Your task to perform on an android device: change notification settings in the gmail app Image 0: 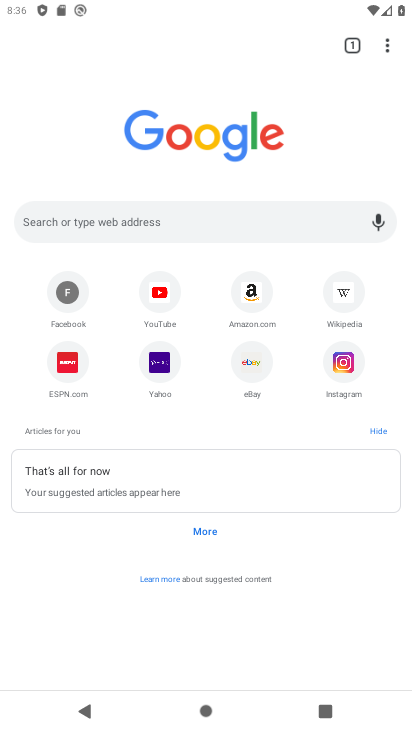
Step 0: press home button
Your task to perform on an android device: change notification settings in the gmail app Image 1: 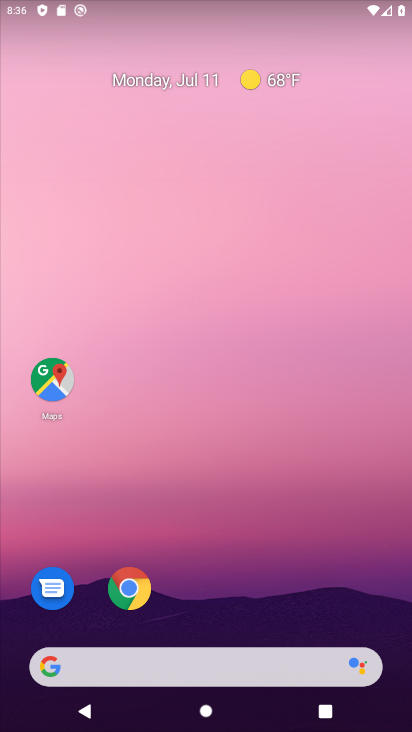
Step 1: drag from (199, 643) to (246, 39)
Your task to perform on an android device: change notification settings in the gmail app Image 2: 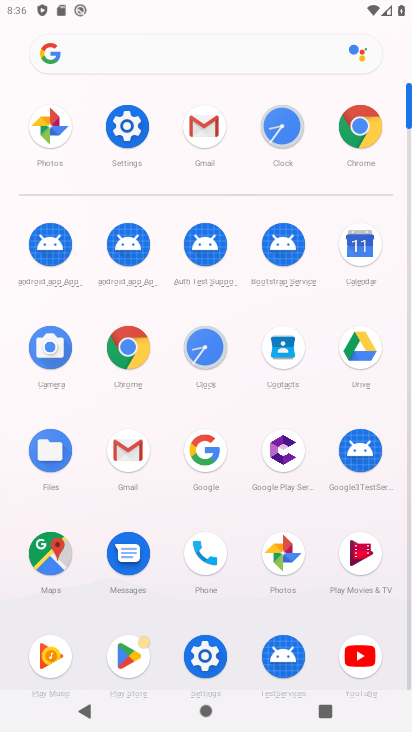
Step 2: click (126, 450)
Your task to perform on an android device: change notification settings in the gmail app Image 3: 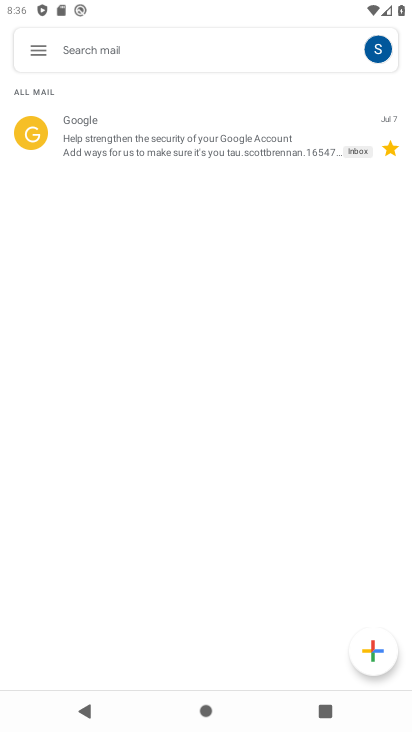
Step 3: click (42, 51)
Your task to perform on an android device: change notification settings in the gmail app Image 4: 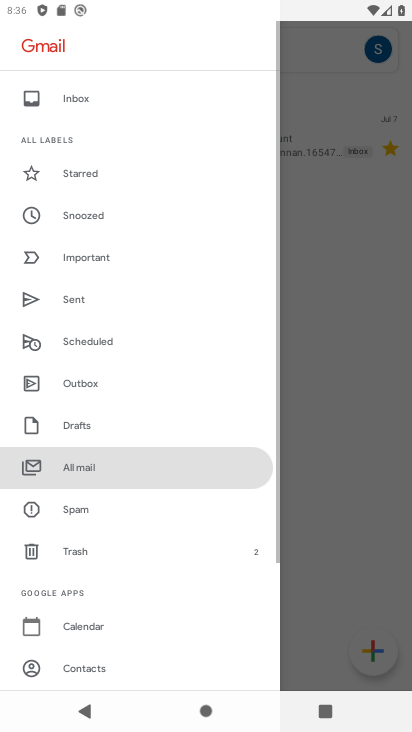
Step 4: drag from (68, 655) to (54, 231)
Your task to perform on an android device: change notification settings in the gmail app Image 5: 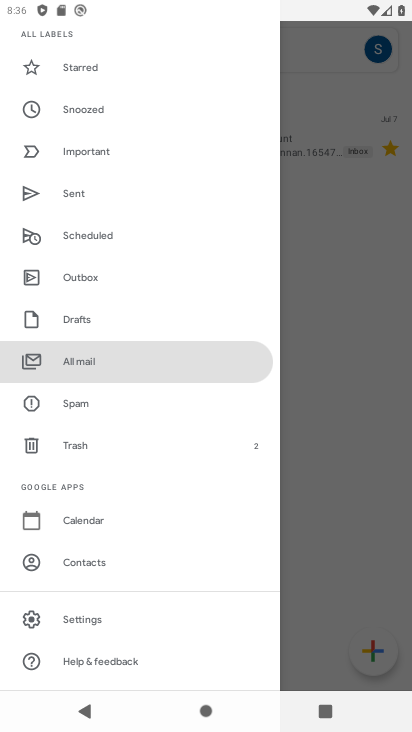
Step 5: click (61, 611)
Your task to perform on an android device: change notification settings in the gmail app Image 6: 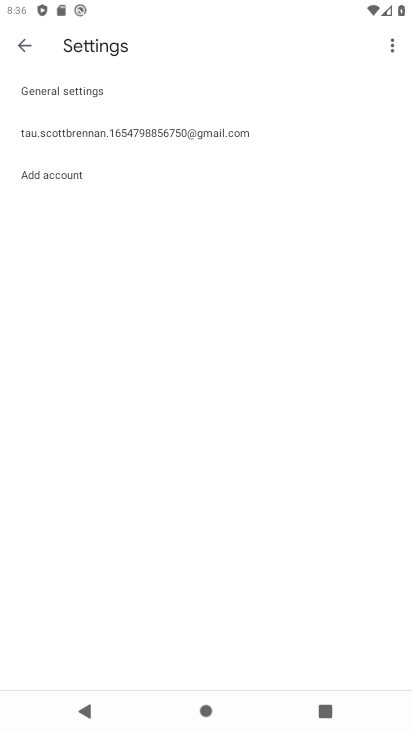
Step 6: click (66, 100)
Your task to perform on an android device: change notification settings in the gmail app Image 7: 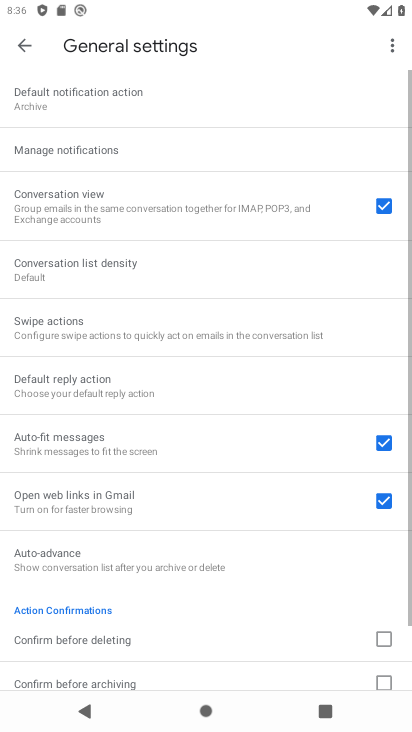
Step 7: click (72, 158)
Your task to perform on an android device: change notification settings in the gmail app Image 8: 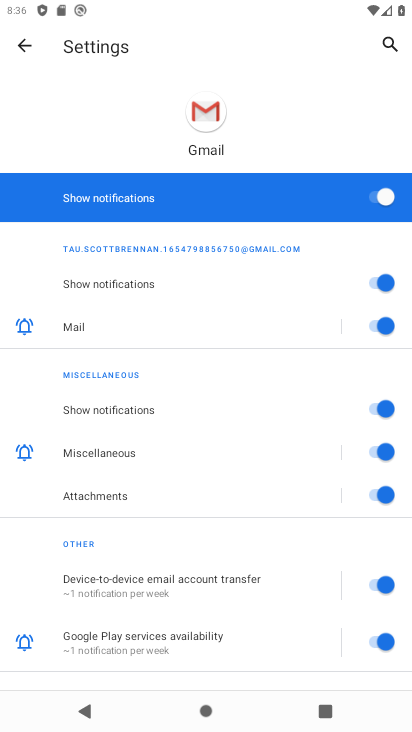
Step 8: click (369, 193)
Your task to perform on an android device: change notification settings in the gmail app Image 9: 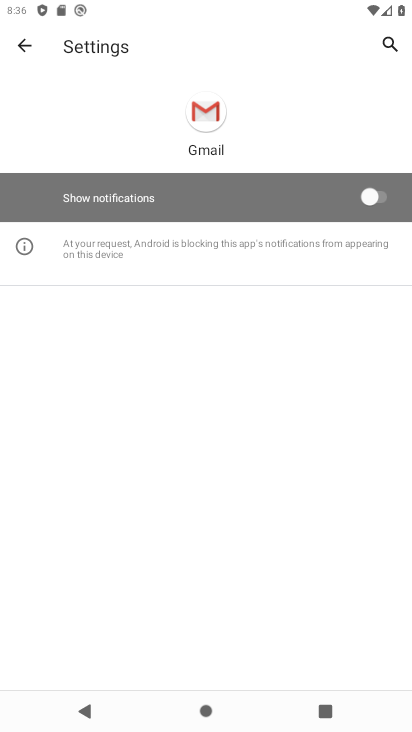
Step 9: task complete